Your task to perform on an android device: open chrome privacy settings Image 0: 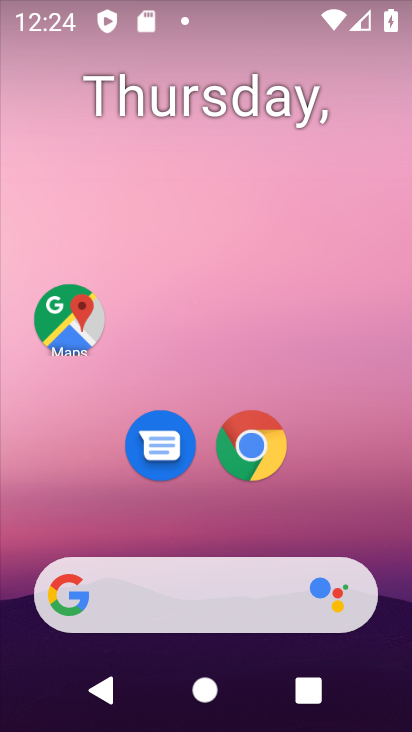
Step 0: drag from (334, 506) to (351, 116)
Your task to perform on an android device: open chrome privacy settings Image 1: 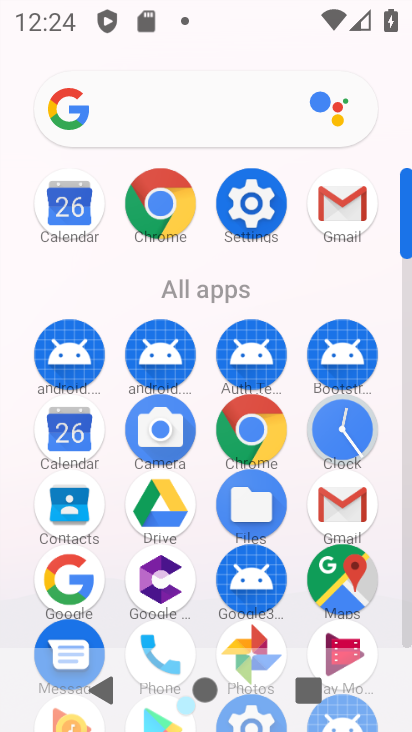
Step 1: click (279, 434)
Your task to perform on an android device: open chrome privacy settings Image 2: 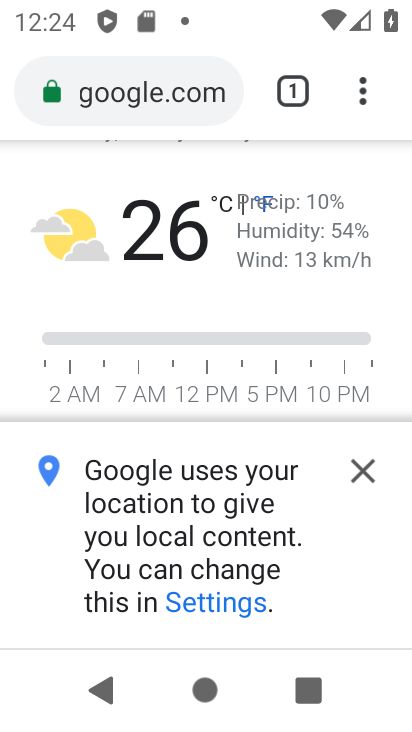
Step 2: click (353, 88)
Your task to perform on an android device: open chrome privacy settings Image 3: 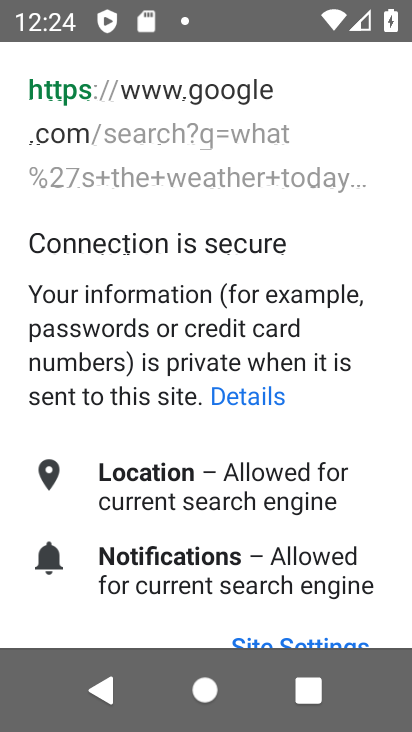
Step 3: press back button
Your task to perform on an android device: open chrome privacy settings Image 4: 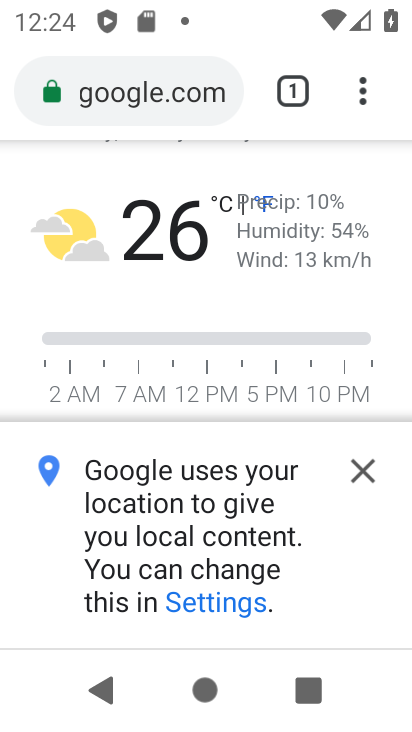
Step 4: drag from (368, 101) to (215, 489)
Your task to perform on an android device: open chrome privacy settings Image 5: 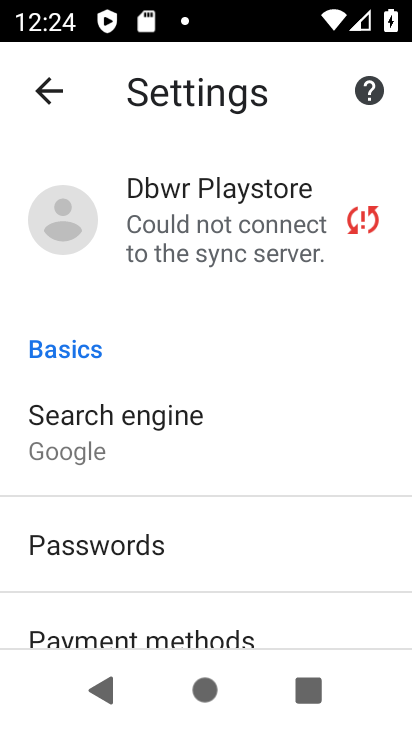
Step 5: drag from (314, 607) to (292, 207)
Your task to perform on an android device: open chrome privacy settings Image 6: 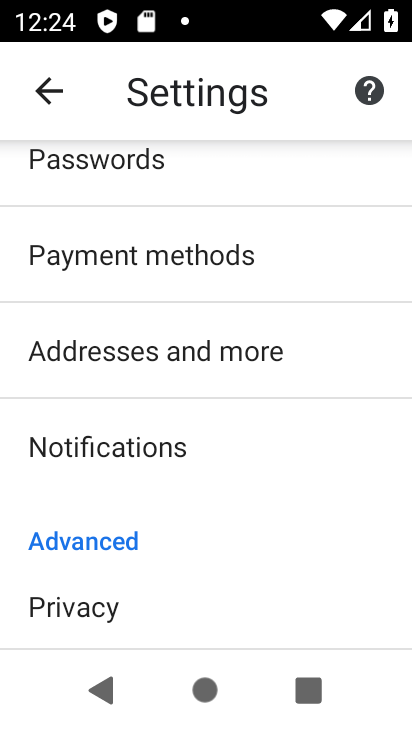
Step 6: drag from (242, 557) to (250, 349)
Your task to perform on an android device: open chrome privacy settings Image 7: 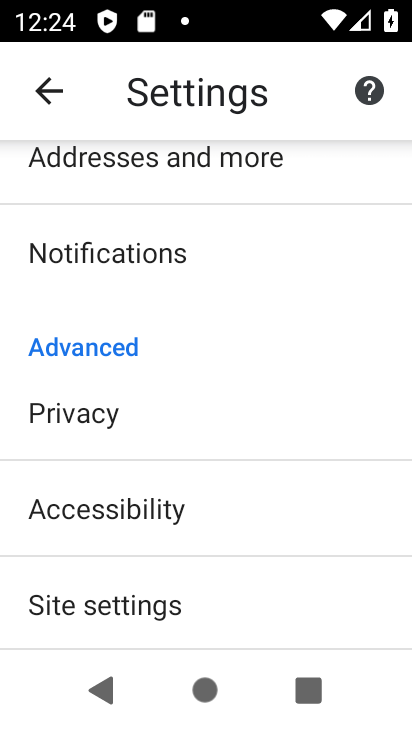
Step 7: click (114, 441)
Your task to perform on an android device: open chrome privacy settings Image 8: 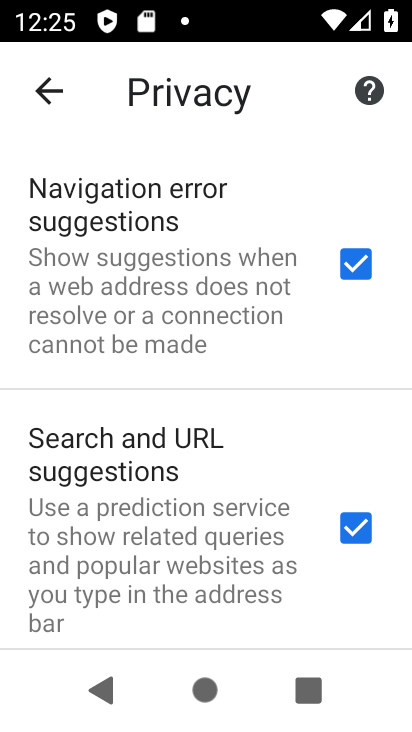
Step 8: task complete